Your task to perform on an android device: turn off notifications in google photos Image 0: 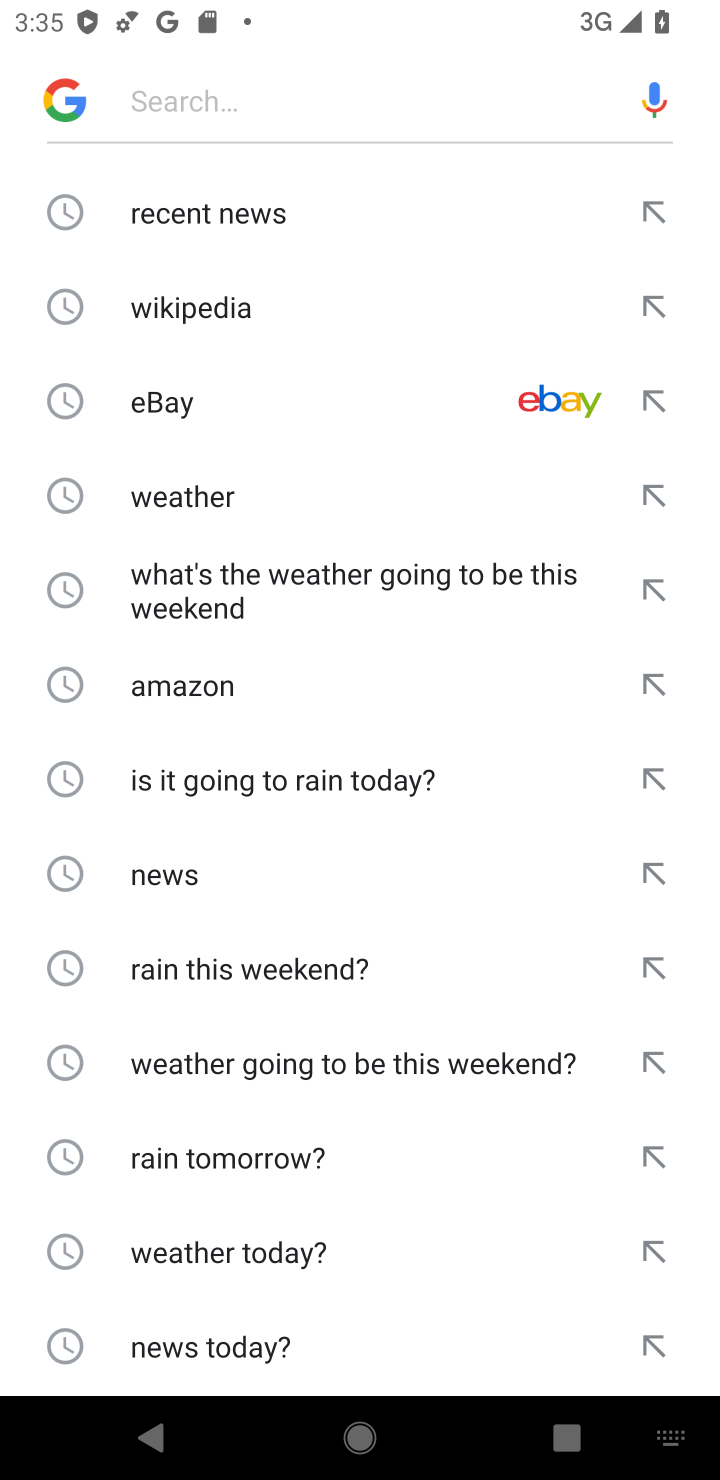
Step 0: press home button
Your task to perform on an android device: turn off notifications in google photos Image 1: 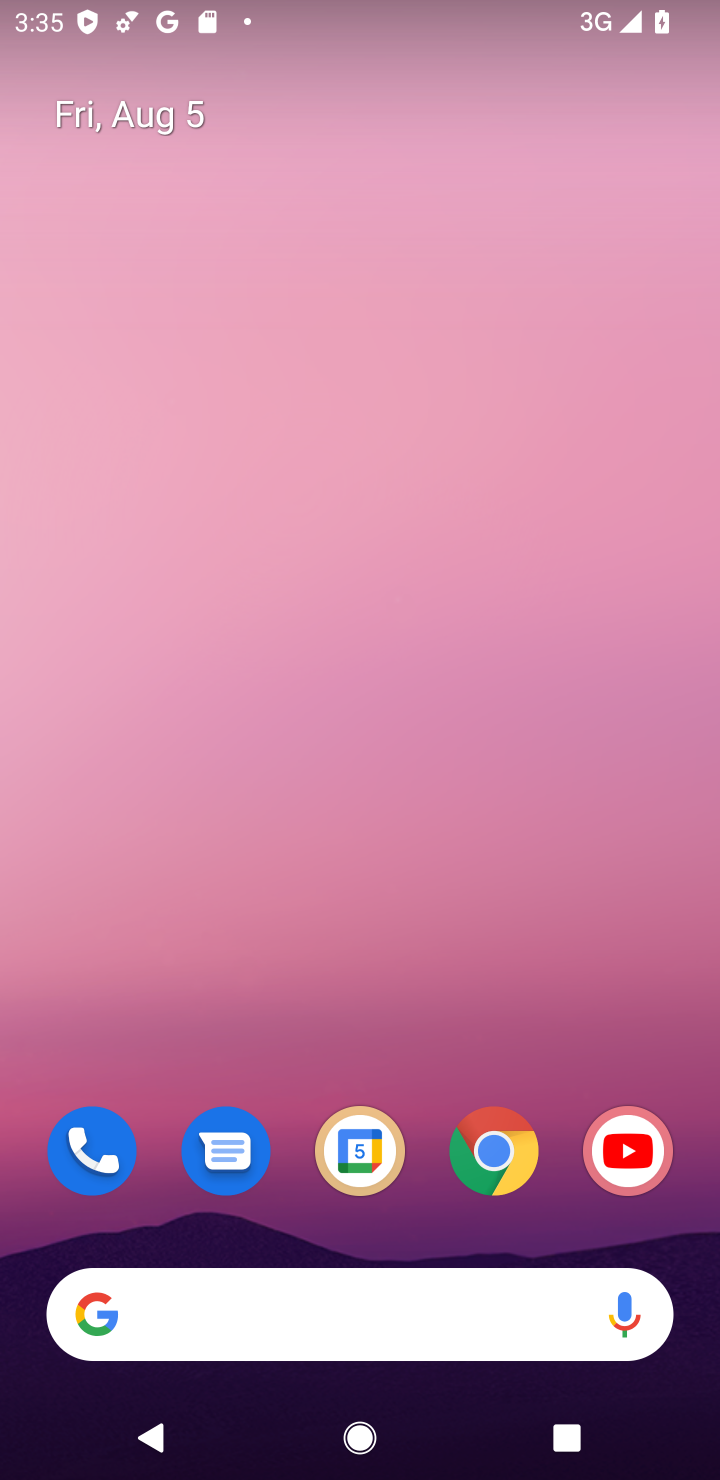
Step 1: drag from (473, 1014) to (525, 10)
Your task to perform on an android device: turn off notifications in google photos Image 2: 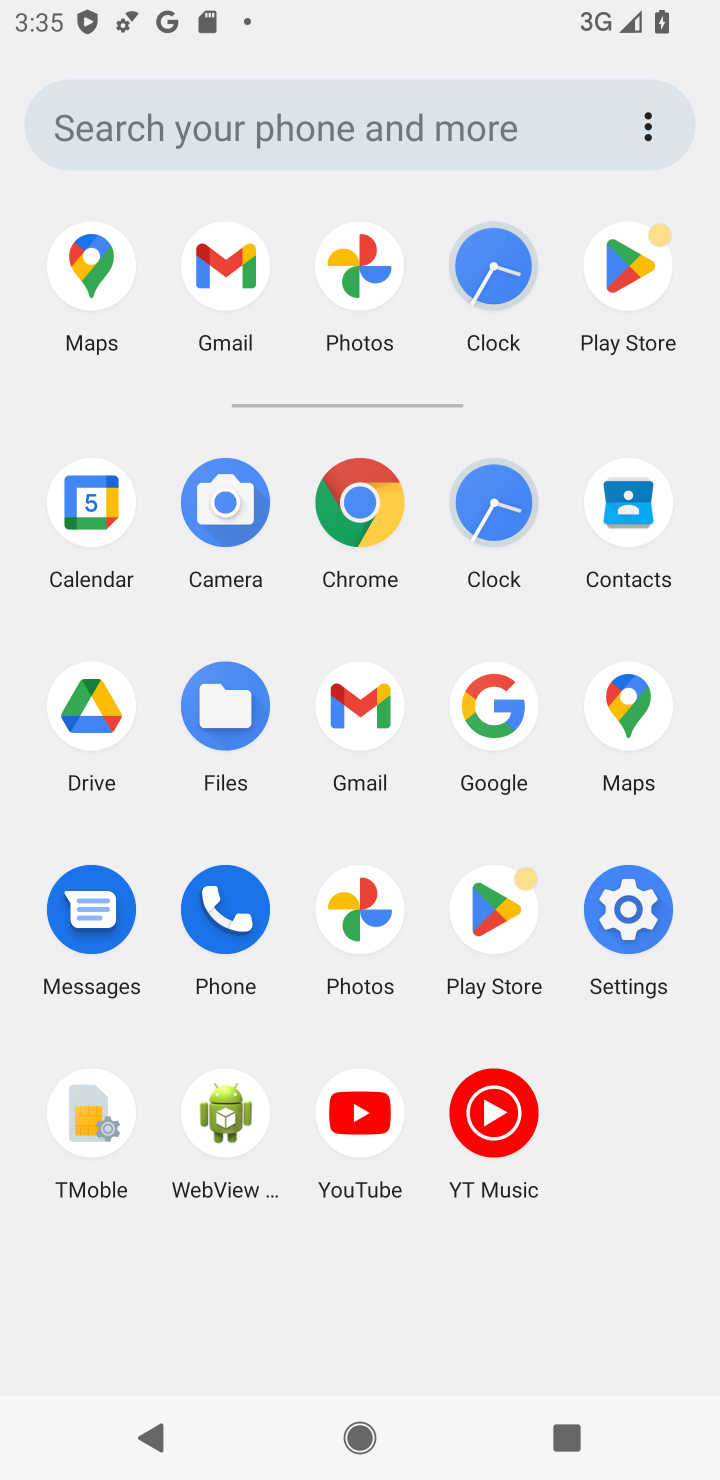
Step 2: click (372, 264)
Your task to perform on an android device: turn off notifications in google photos Image 3: 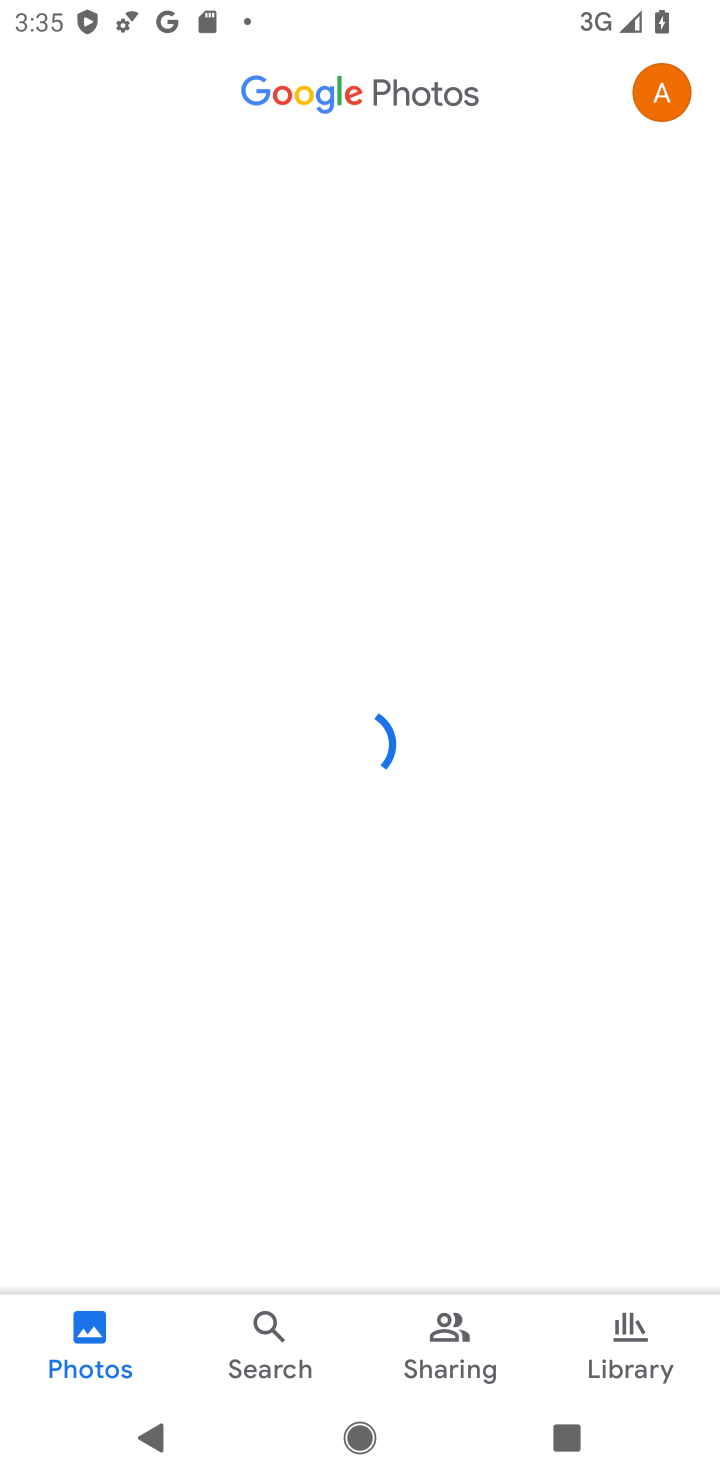
Step 3: click (372, 264)
Your task to perform on an android device: turn off notifications in google photos Image 4: 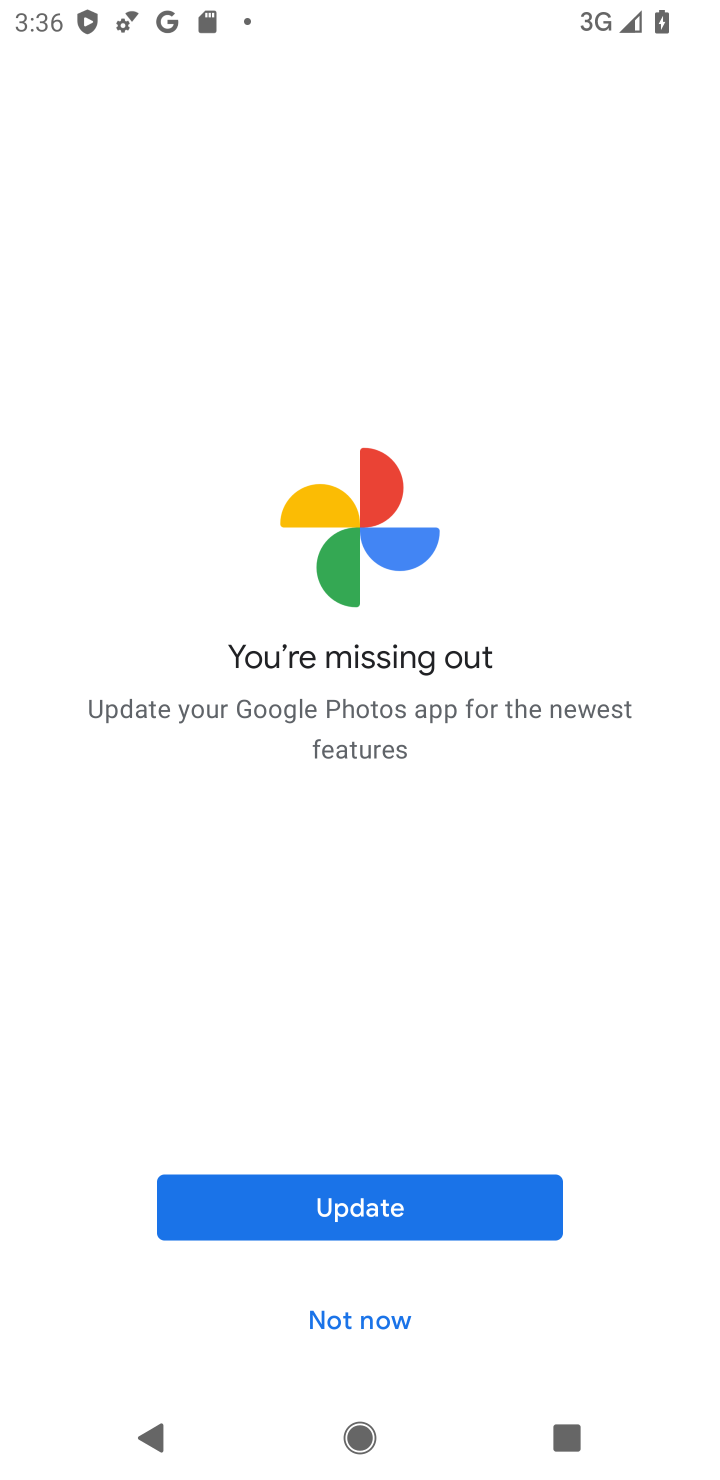
Step 4: click (381, 1232)
Your task to perform on an android device: turn off notifications in google photos Image 5: 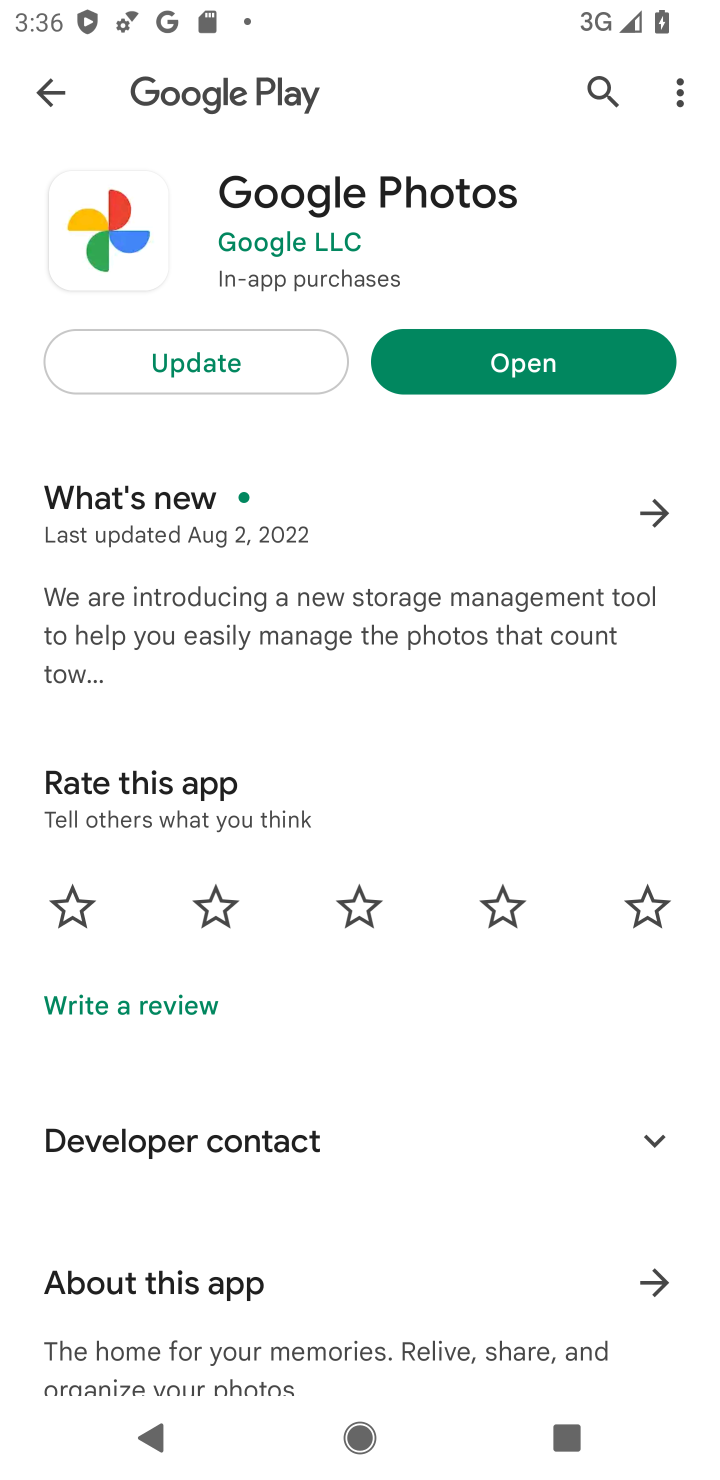
Step 5: click (165, 381)
Your task to perform on an android device: turn off notifications in google photos Image 6: 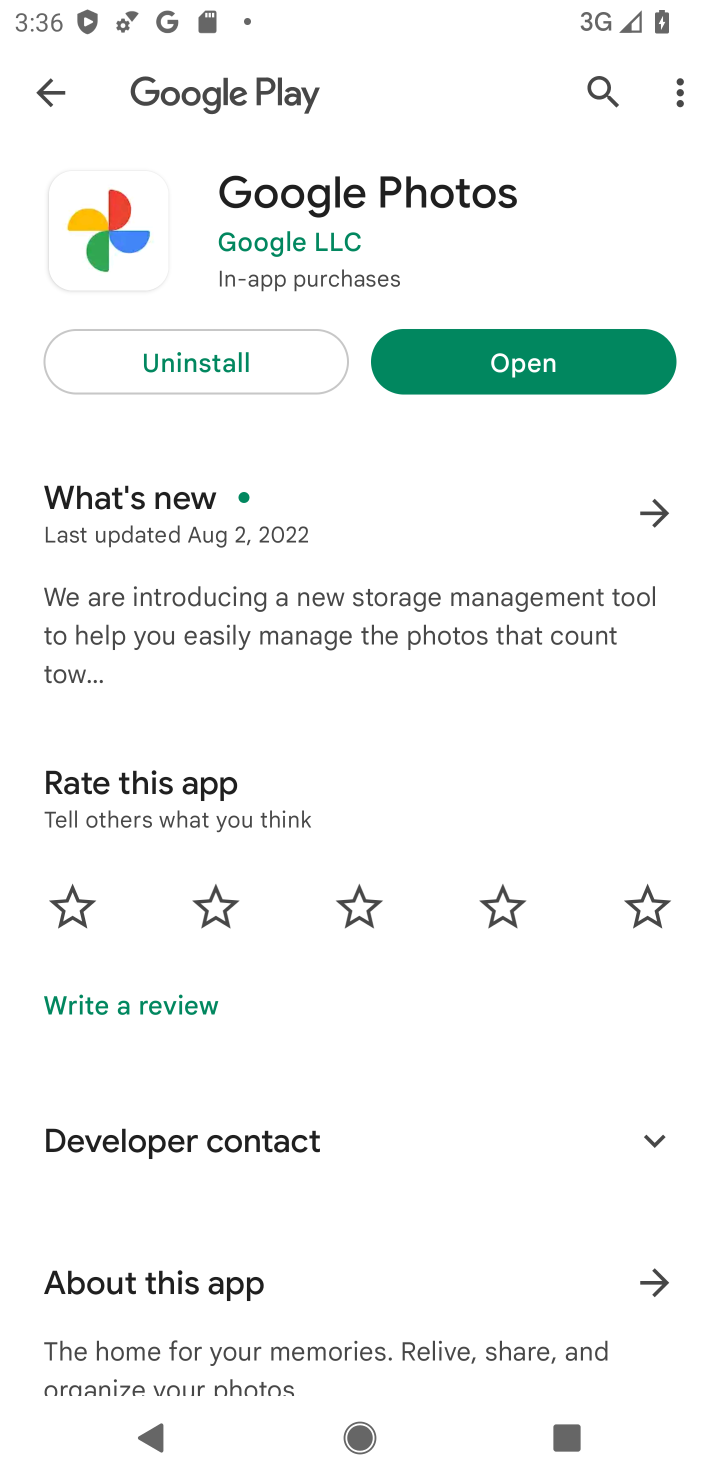
Step 6: click (518, 377)
Your task to perform on an android device: turn off notifications in google photos Image 7: 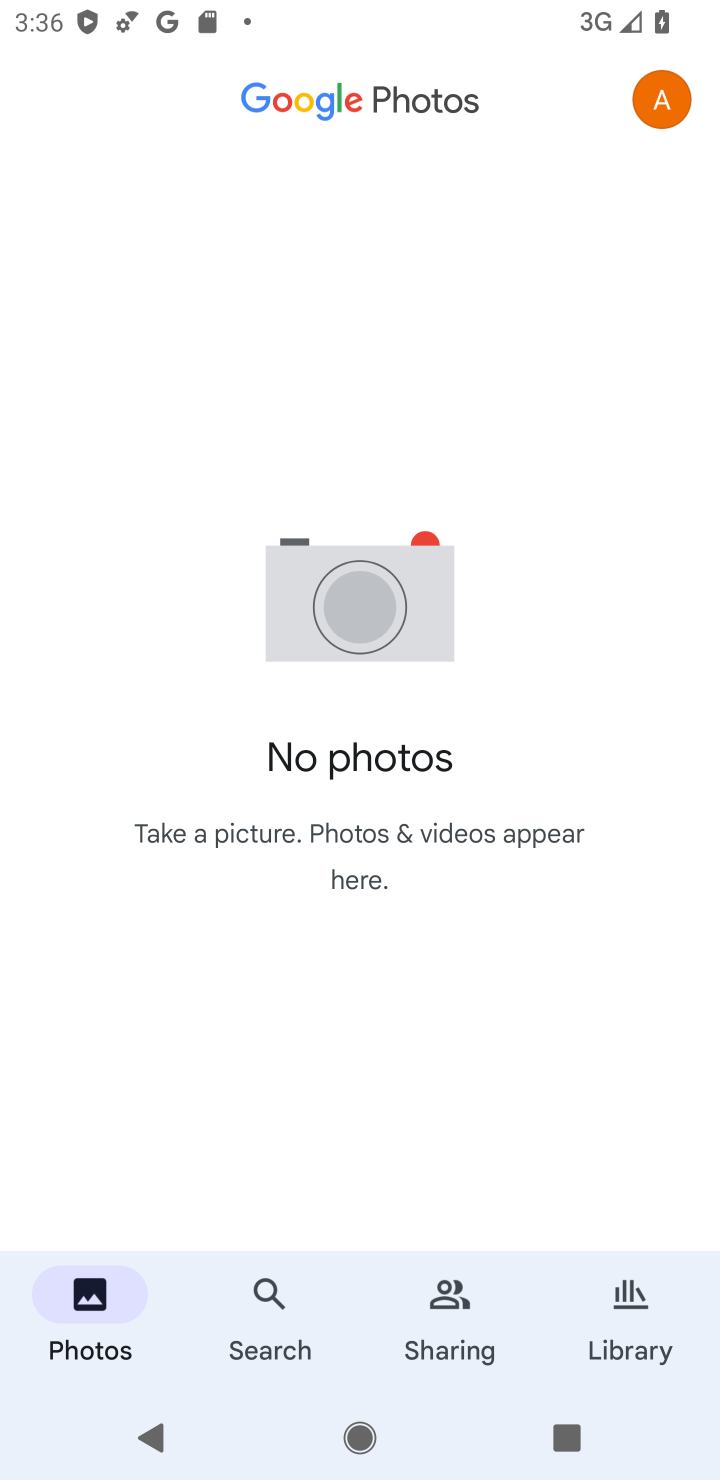
Step 7: click (671, 120)
Your task to perform on an android device: turn off notifications in google photos Image 8: 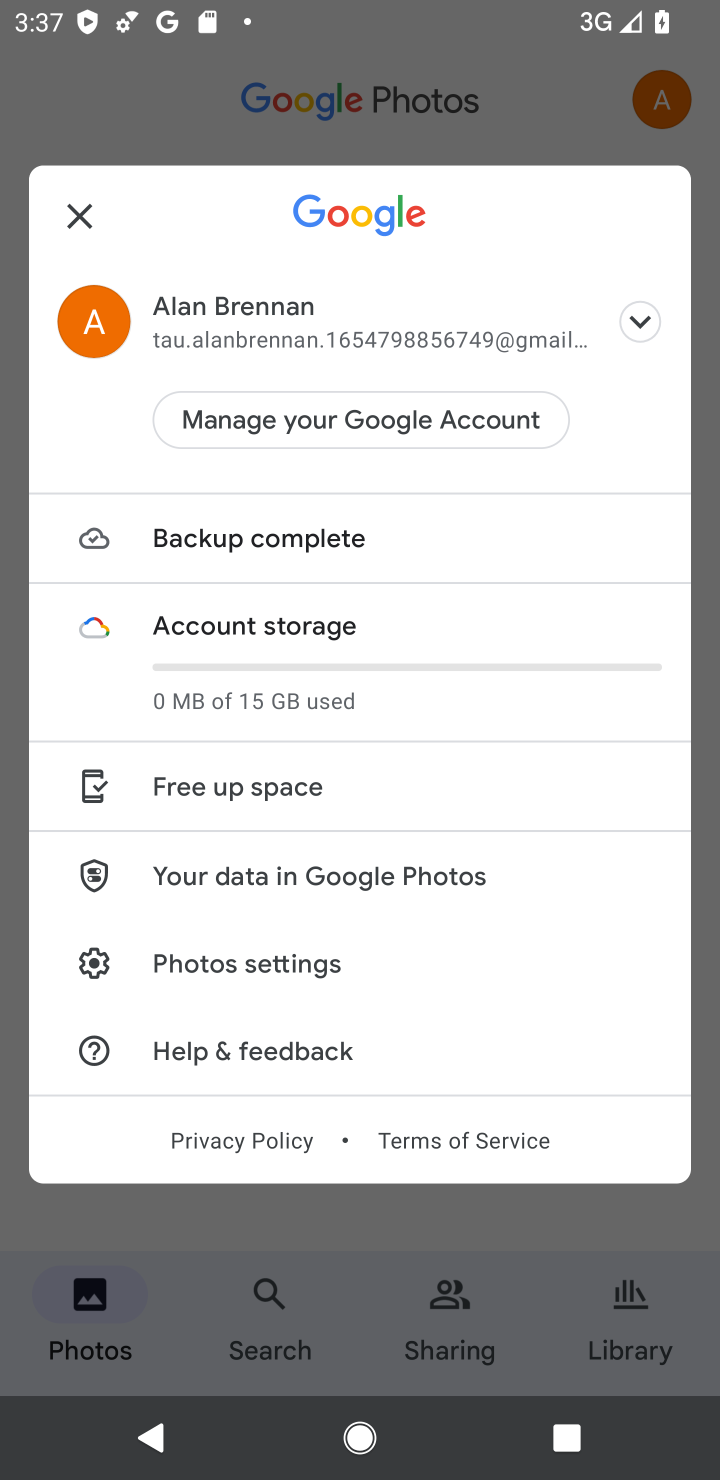
Step 8: click (307, 972)
Your task to perform on an android device: turn off notifications in google photos Image 9: 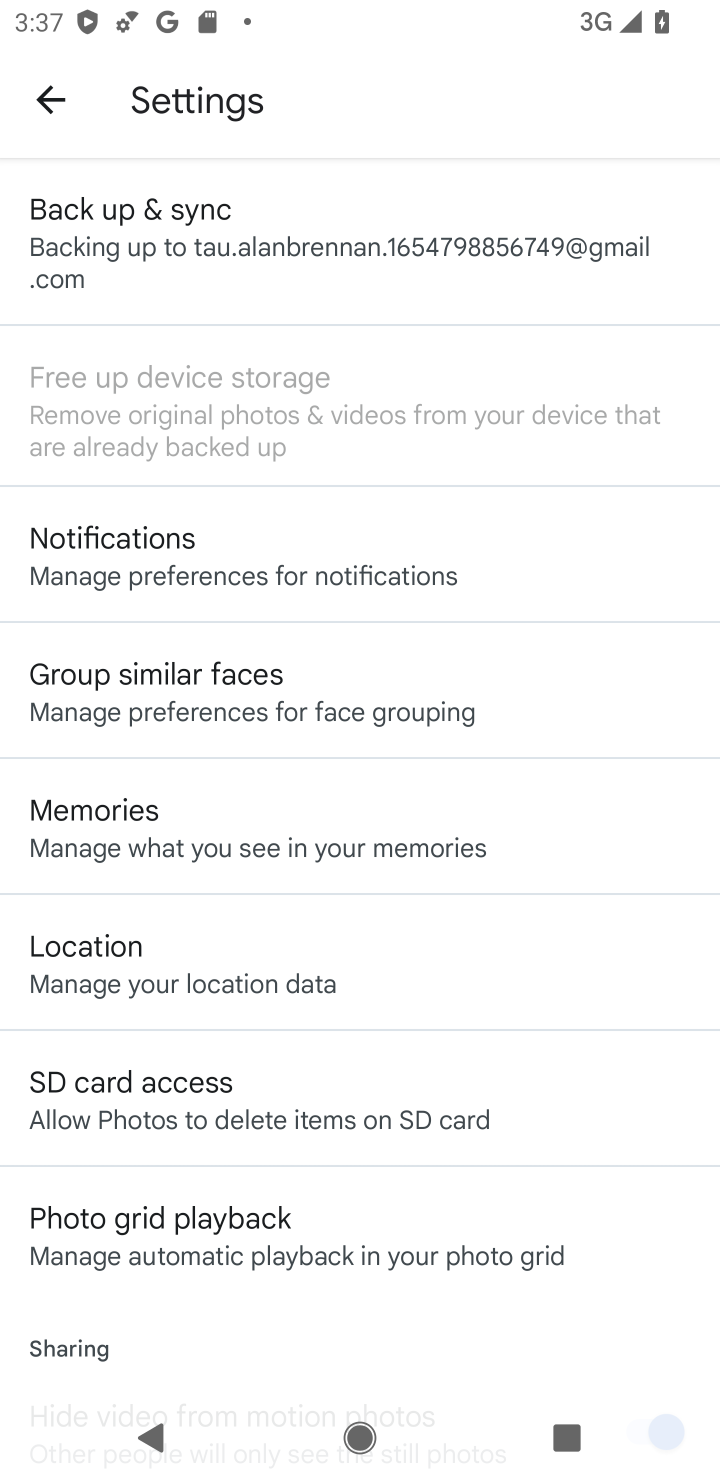
Step 9: click (198, 573)
Your task to perform on an android device: turn off notifications in google photos Image 10: 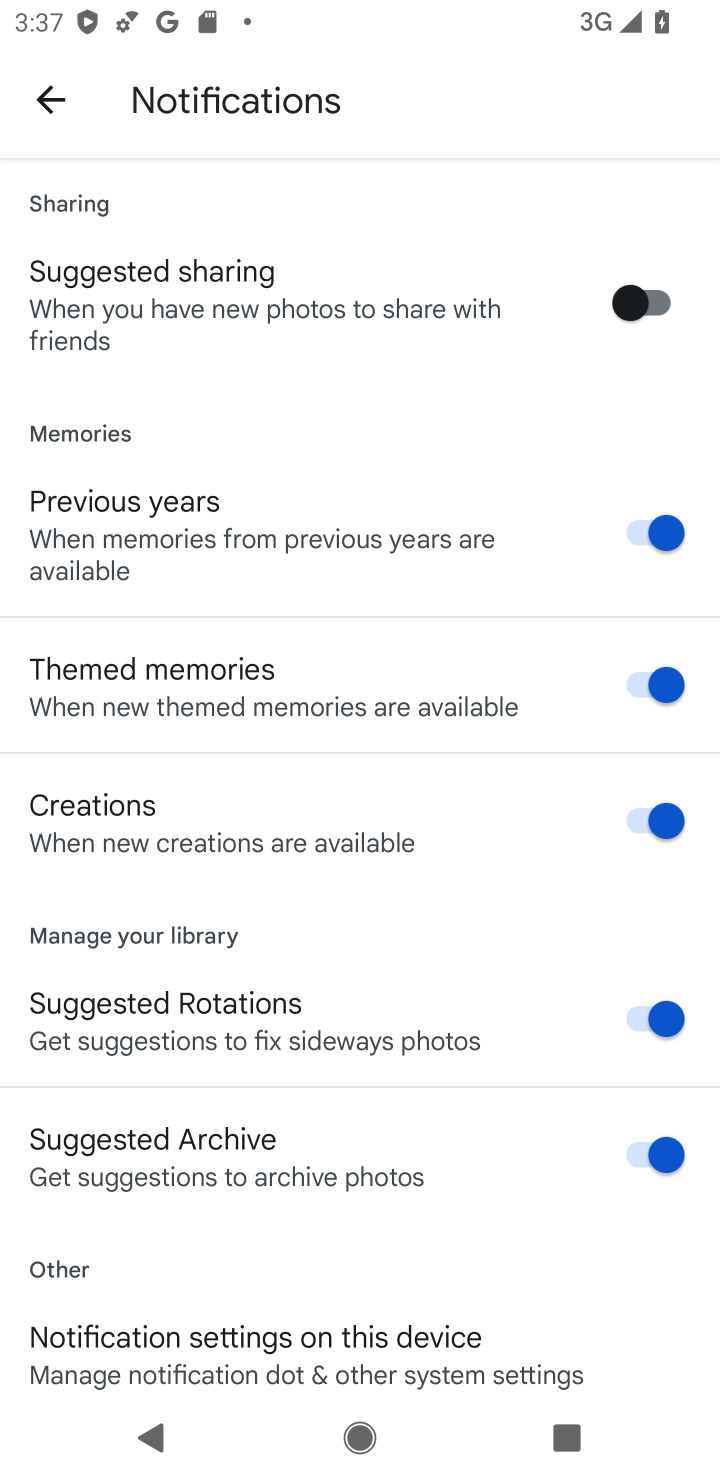
Step 10: click (264, 1331)
Your task to perform on an android device: turn off notifications in google photos Image 11: 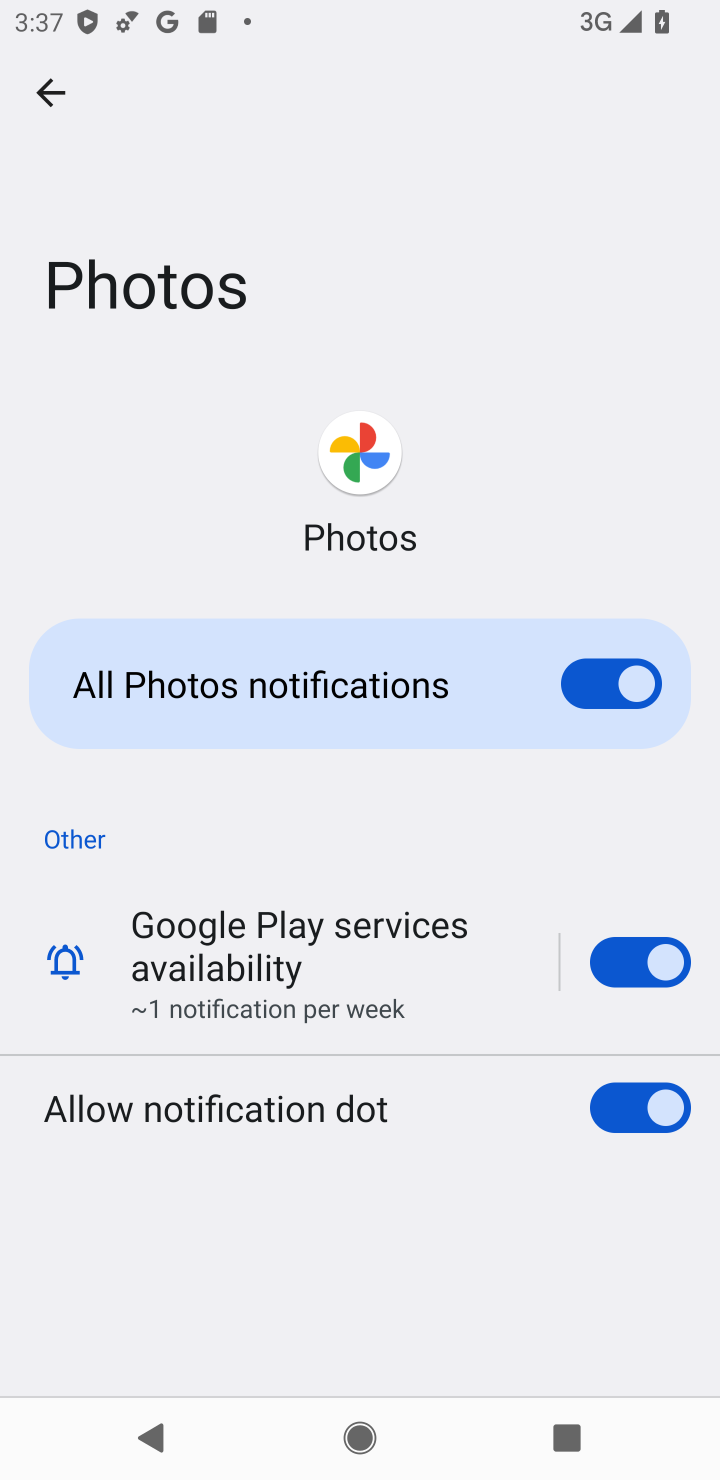
Step 11: click (586, 679)
Your task to perform on an android device: turn off notifications in google photos Image 12: 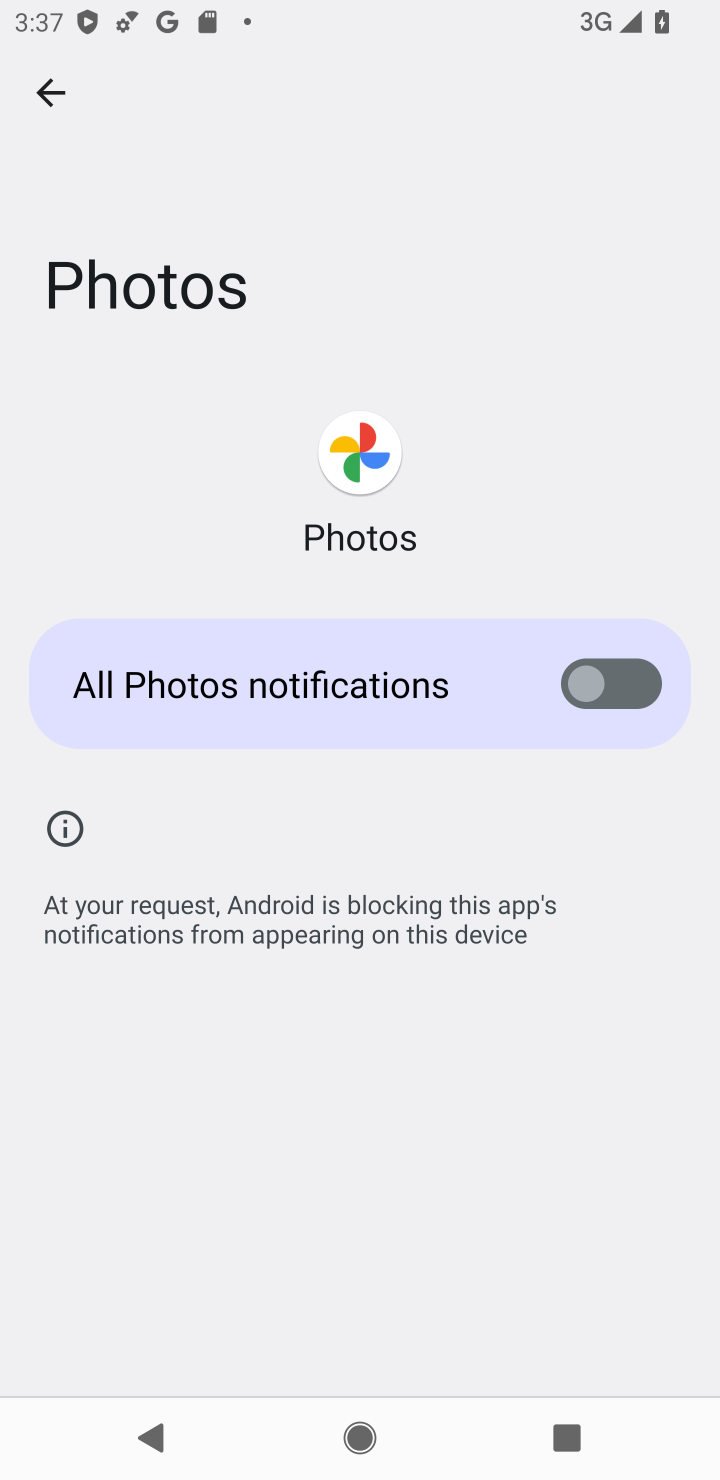
Step 12: task complete